Your task to perform on an android device: Go to sound settings Image 0: 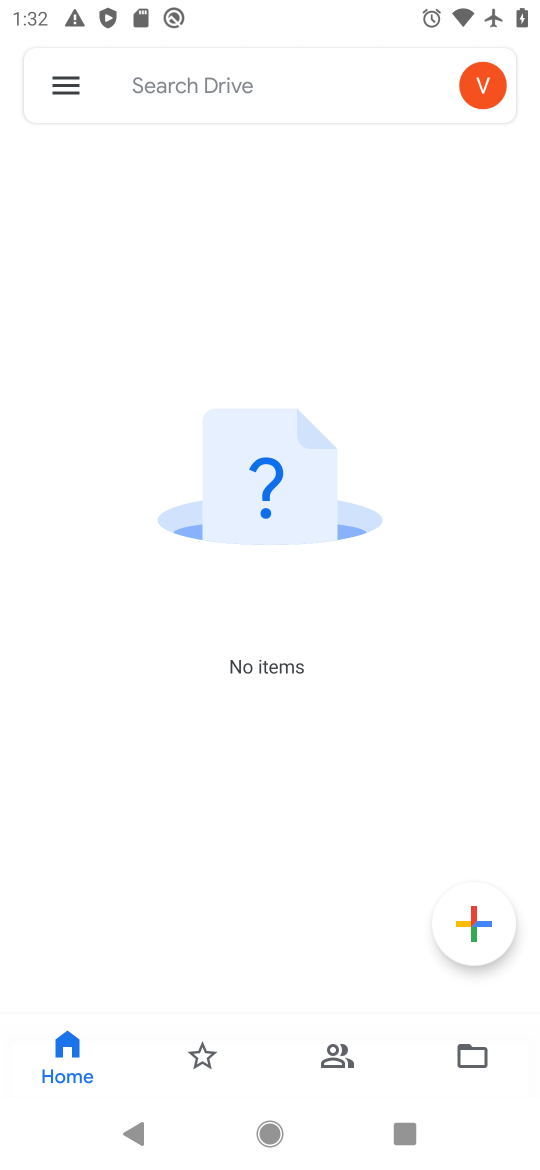
Step 0: press home button
Your task to perform on an android device: Go to sound settings Image 1: 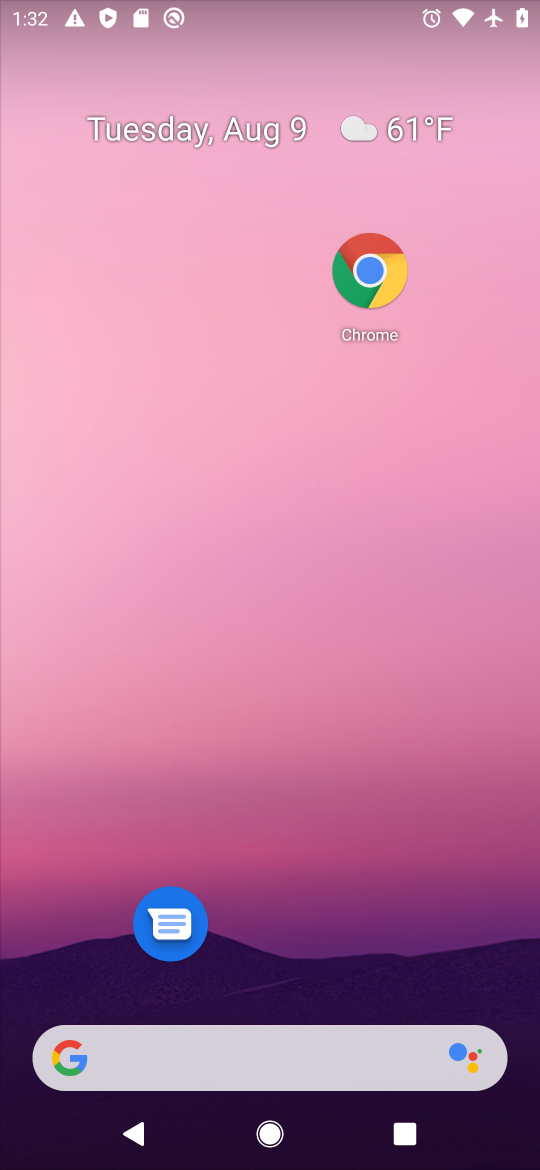
Step 1: drag from (377, 987) to (252, 63)
Your task to perform on an android device: Go to sound settings Image 2: 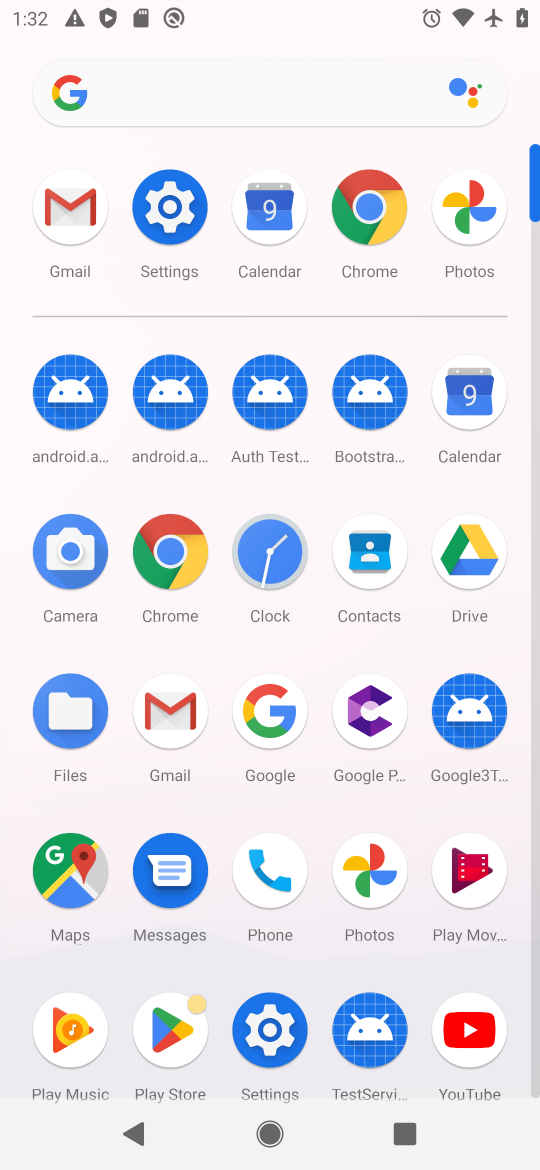
Step 2: click (178, 276)
Your task to perform on an android device: Go to sound settings Image 3: 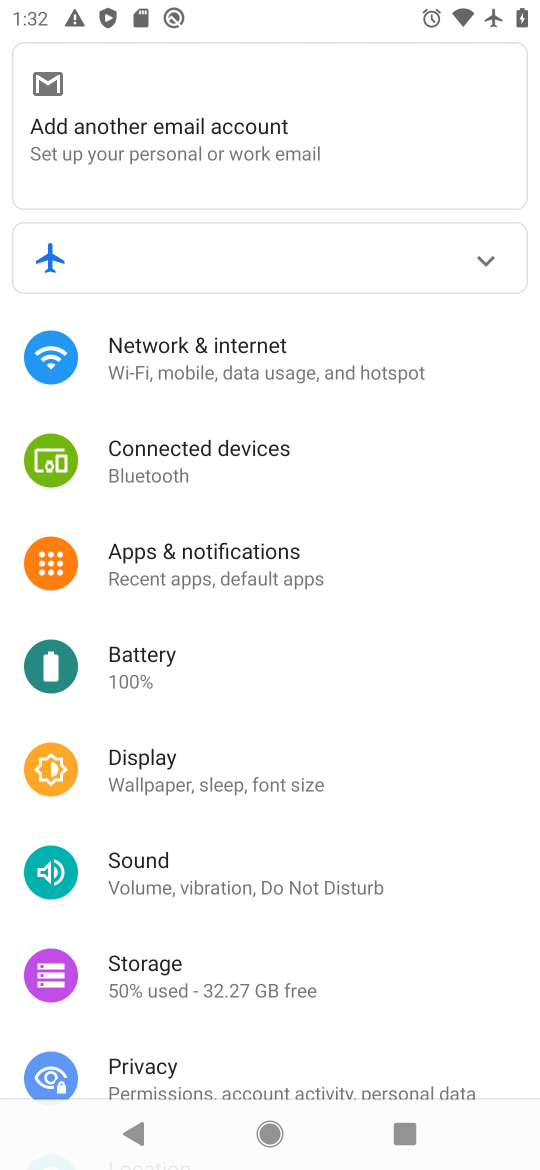
Step 3: click (236, 895)
Your task to perform on an android device: Go to sound settings Image 4: 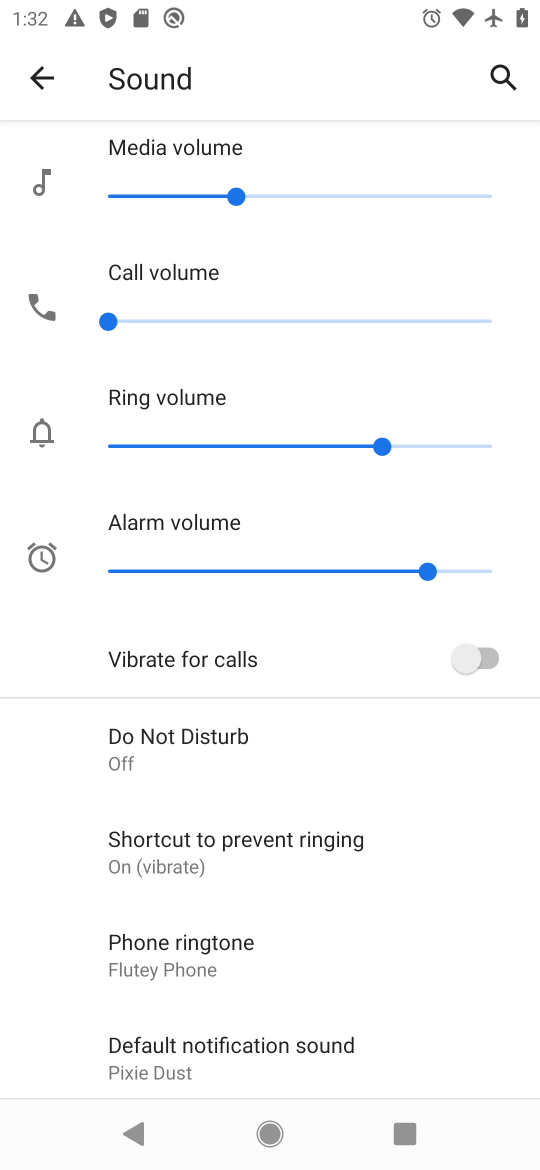
Step 4: task complete